Your task to perform on an android device: Open Reddit.com Image 0: 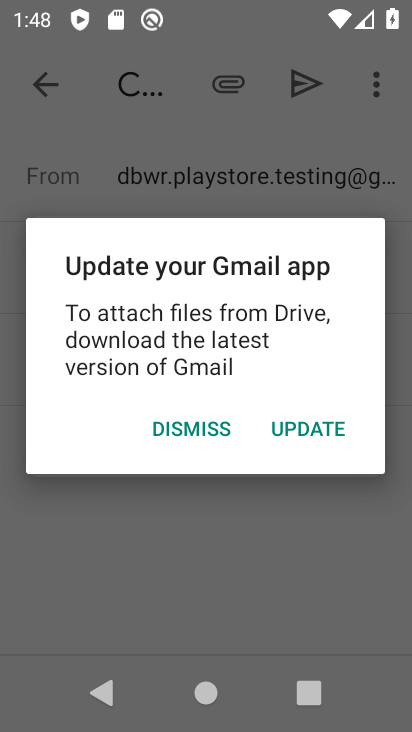
Step 0: press home button
Your task to perform on an android device: Open Reddit.com Image 1: 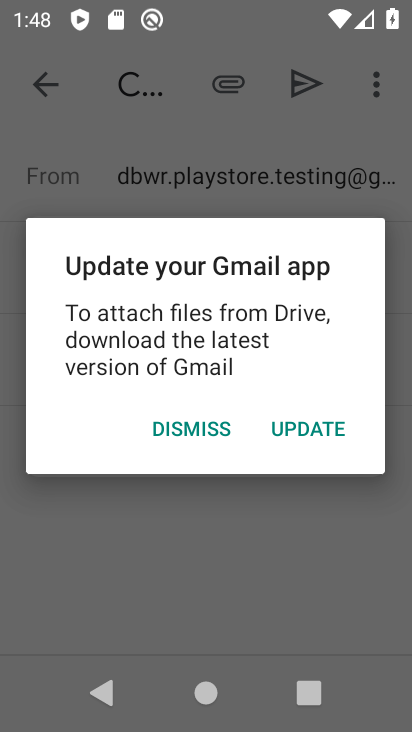
Step 1: press home button
Your task to perform on an android device: Open Reddit.com Image 2: 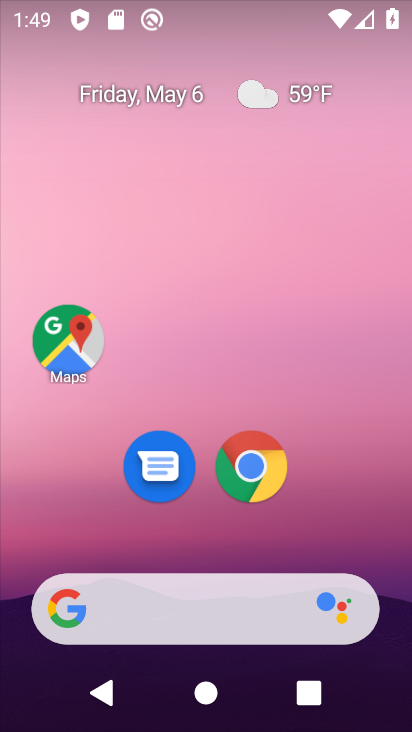
Step 2: click (251, 459)
Your task to perform on an android device: Open Reddit.com Image 3: 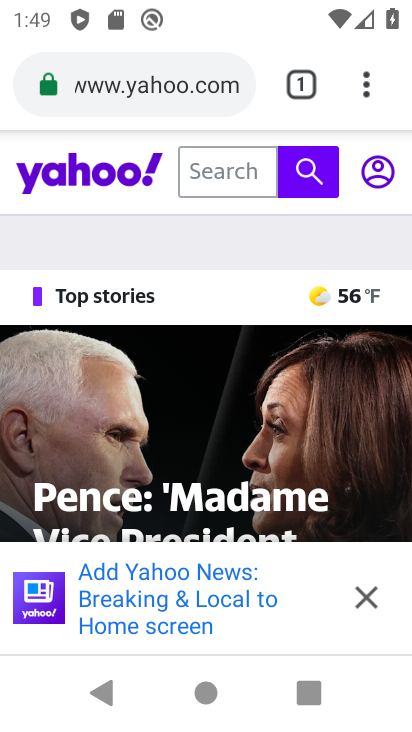
Step 3: click (304, 83)
Your task to perform on an android device: Open Reddit.com Image 4: 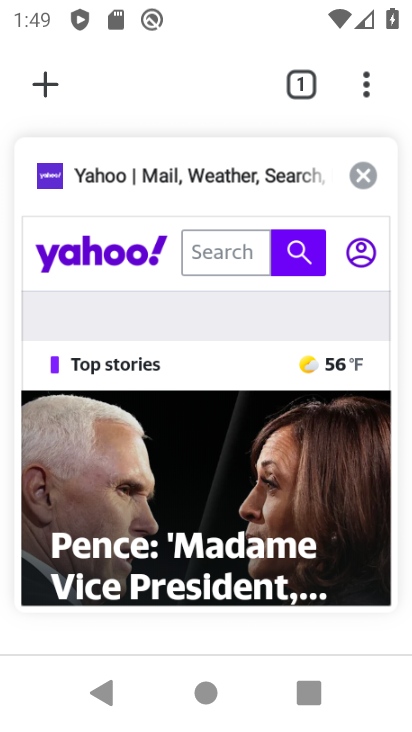
Step 4: click (38, 85)
Your task to perform on an android device: Open Reddit.com Image 5: 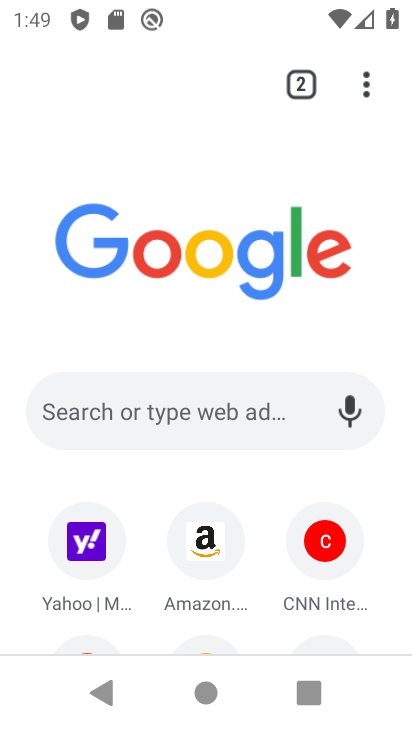
Step 5: drag from (258, 607) to (242, 278)
Your task to perform on an android device: Open Reddit.com Image 6: 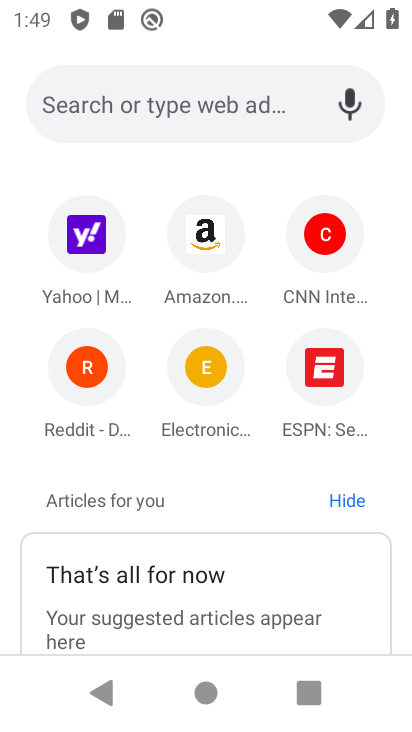
Step 6: click (94, 367)
Your task to perform on an android device: Open Reddit.com Image 7: 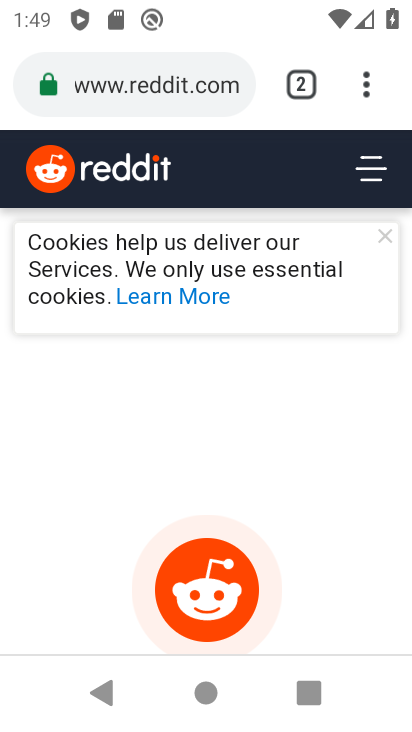
Step 7: task complete